Your task to perform on an android device: Open the map Image 0: 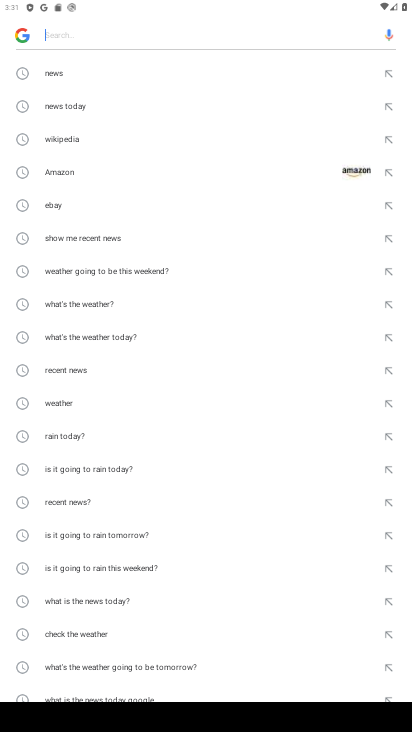
Step 0: press home button
Your task to perform on an android device: Open the map Image 1: 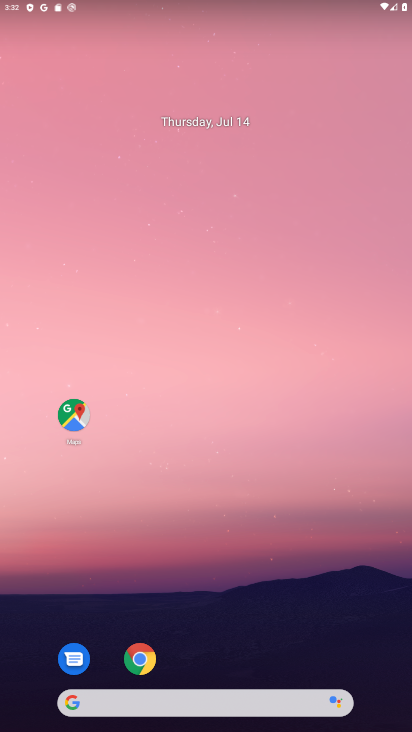
Step 1: drag from (302, 620) to (342, 121)
Your task to perform on an android device: Open the map Image 2: 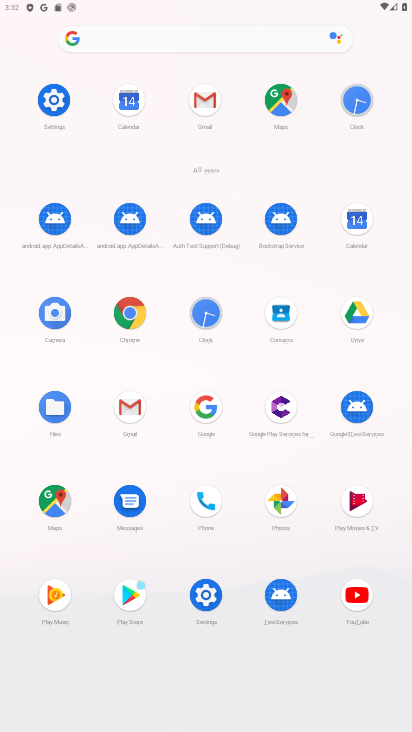
Step 2: click (64, 502)
Your task to perform on an android device: Open the map Image 3: 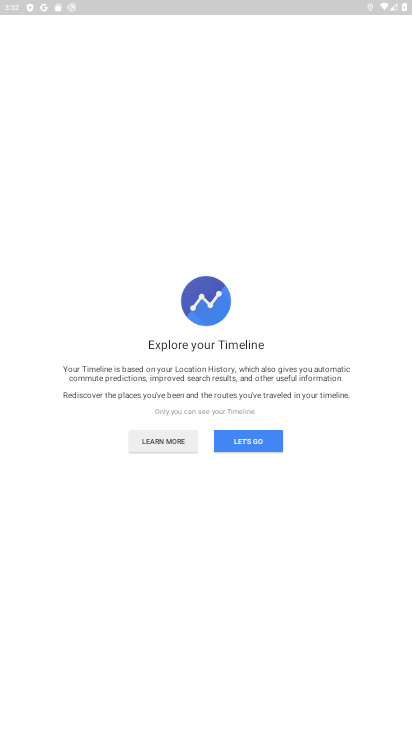
Step 3: task complete